Your task to perform on an android device: all mails in gmail Image 0: 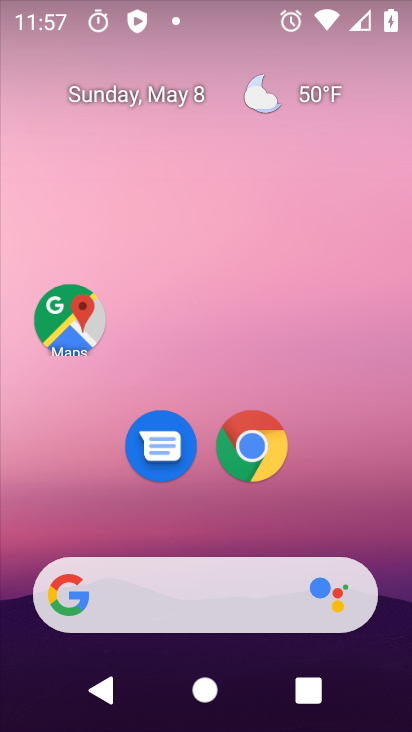
Step 0: drag from (317, 526) to (234, 101)
Your task to perform on an android device: all mails in gmail Image 1: 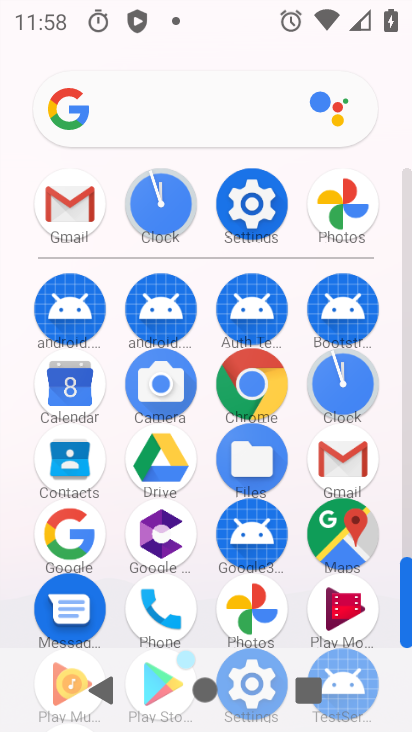
Step 1: click (327, 467)
Your task to perform on an android device: all mails in gmail Image 2: 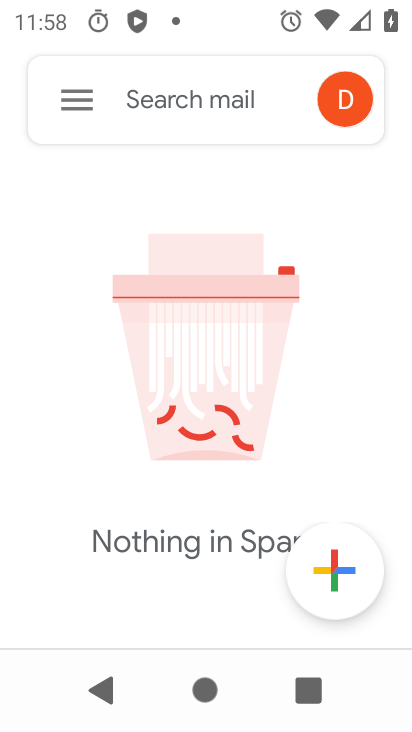
Step 2: click (61, 100)
Your task to perform on an android device: all mails in gmail Image 3: 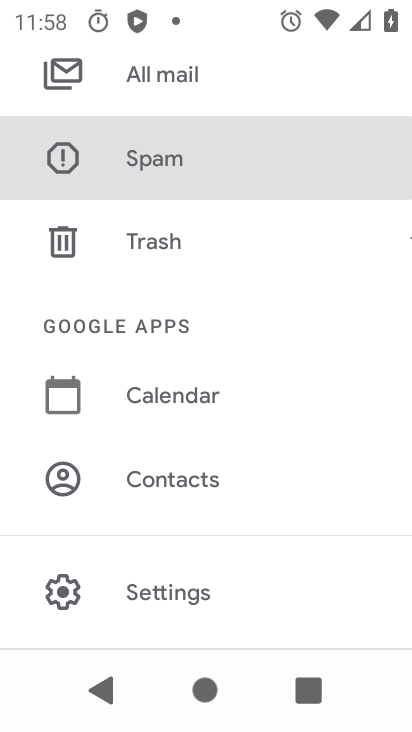
Step 3: click (207, 76)
Your task to perform on an android device: all mails in gmail Image 4: 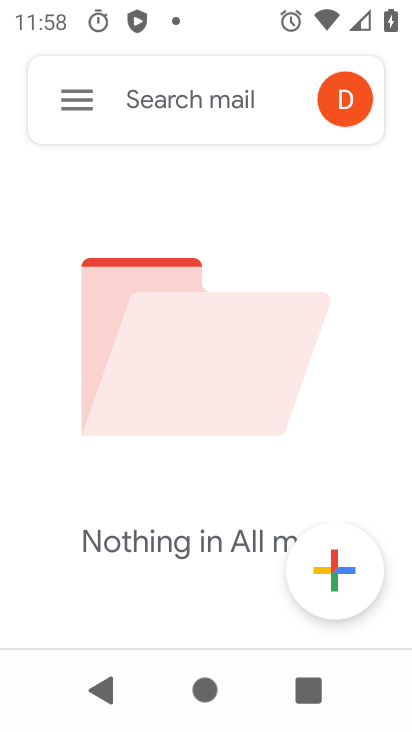
Step 4: task complete